Your task to perform on an android device: remove spam from my inbox in the gmail app Image 0: 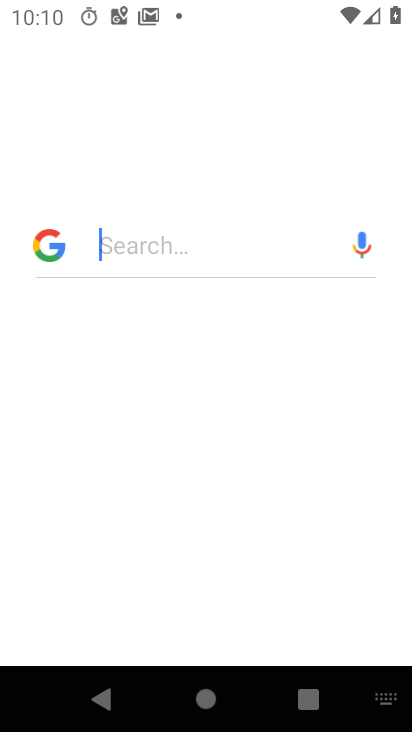
Step 0: drag from (194, 565) to (192, 194)
Your task to perform on an android device: remove spam from my inbox in the gmail app Image 1: 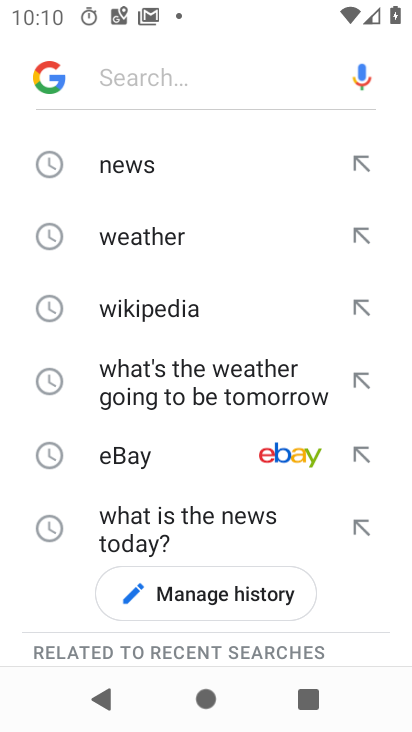
Step 1: press home button
Your task to perform on an android device: remove spam from my inbox in the gmail app Image 2: 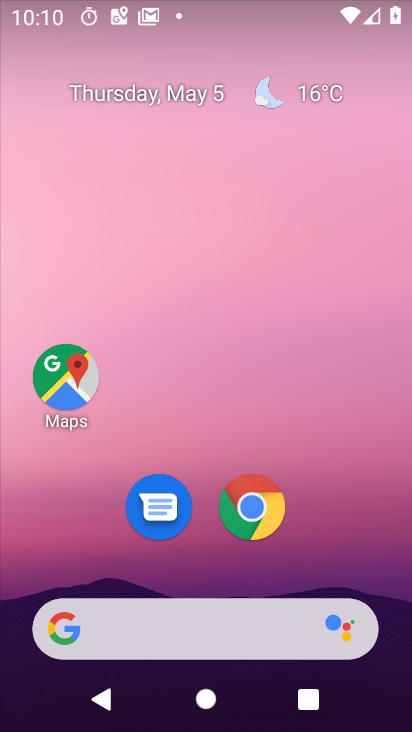
Step 2: drag from (224, 465) to (277, 292)
Your task to perform on an android device: remove spam from my inbox in the gmail app Image 3: 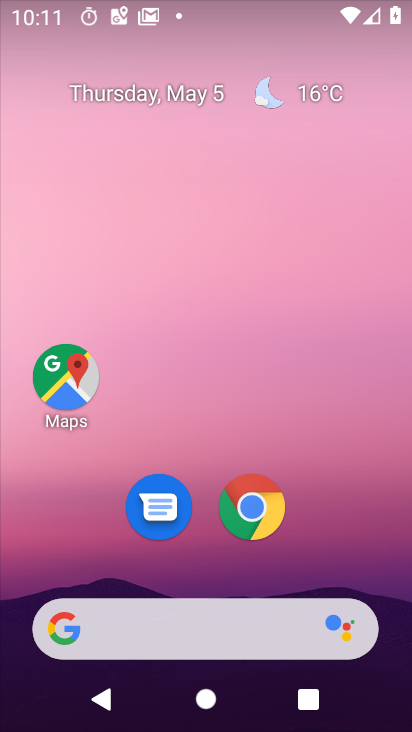
Step 3: drag from (168, 565) to (184, 213)
Your task to perform on an android device: remove spam from my inbox in the gmail app Image 4: 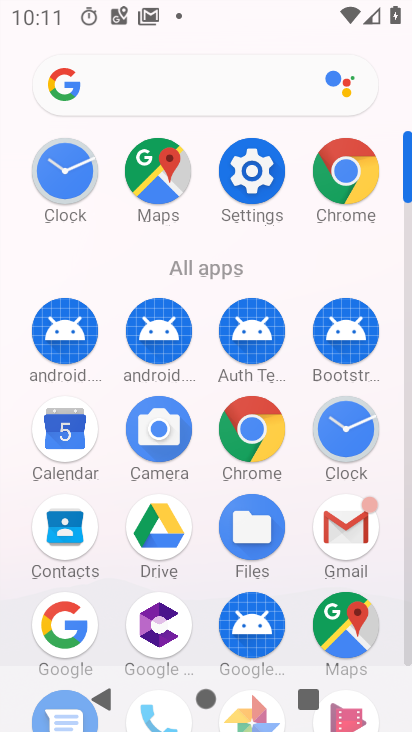
Step 4: click (351, 540)
Your task to perform on an android device: remove spam from my inbox in the gmail app Image 5: 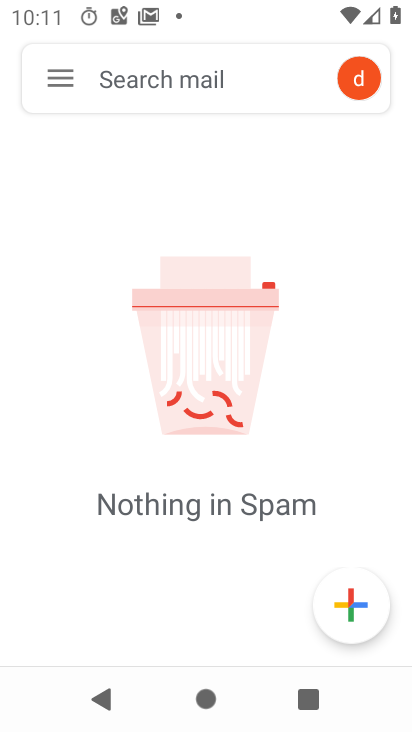
Step 5: task complete